Your task to perform on an android device: Go to display settings Image 0: 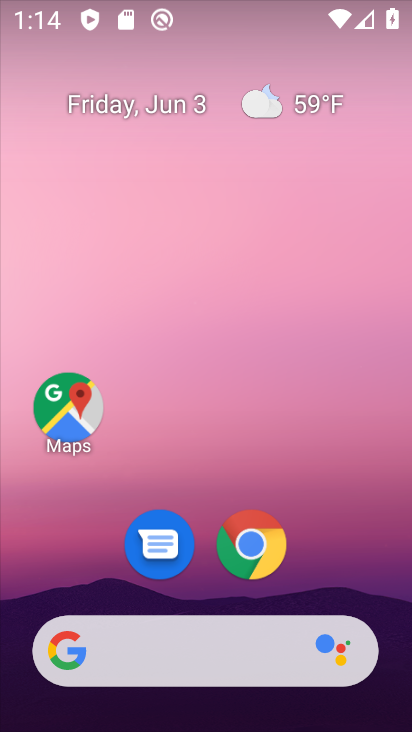
Step 0: drag from (183, 615) to (146, 0)
Your task to perform on an android device: Go to display settings Image 1: 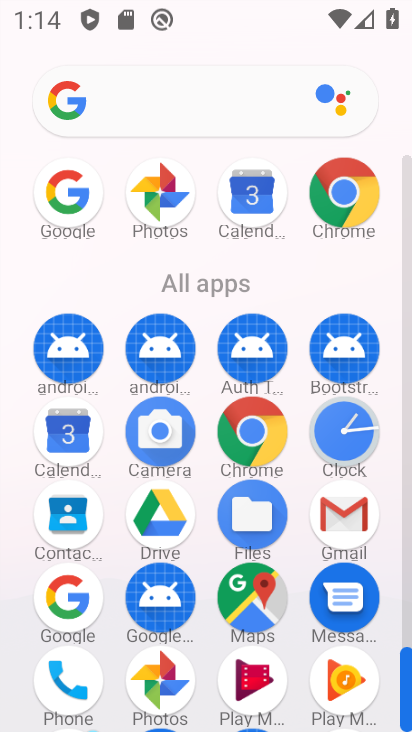
Step 1: drag from (107, 616) to (32, 82)
Your task to perform on an android device: Go to display settings Image 2: 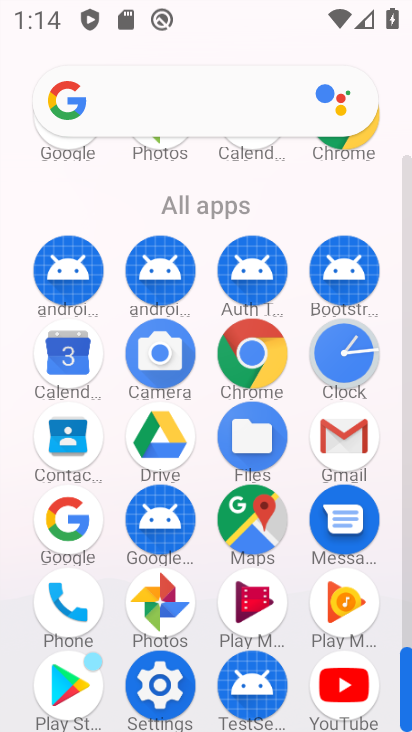
Step 2: click (185, 689)
Your task to perform on an android device: Go to display settings Image 3: 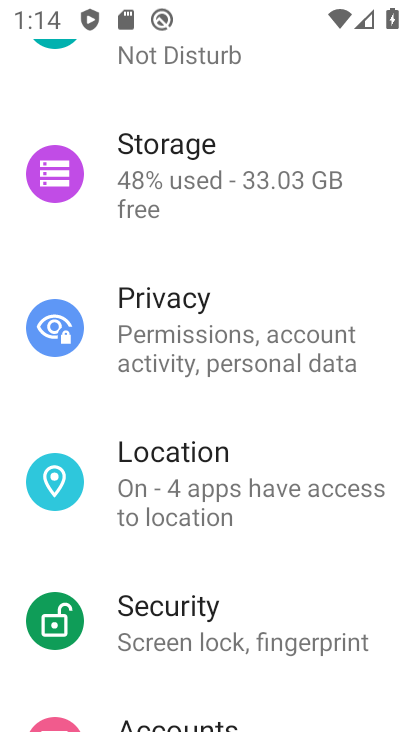
Step 3: drag from (162, 190) to (128, 636)
Your task to perform on an android device: Go to display settings Image 4: 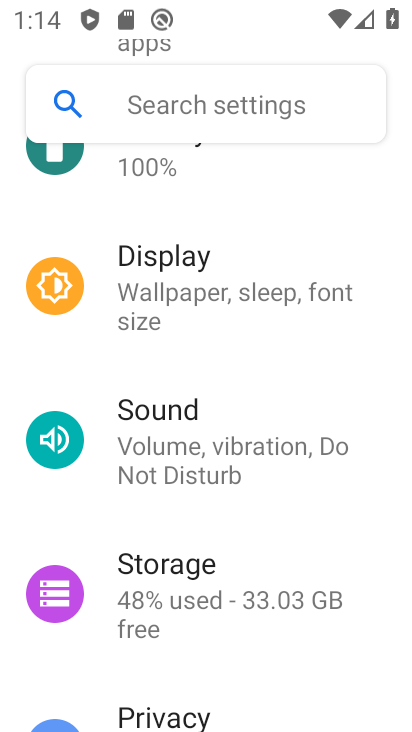
Step 4: click (141, 281)
Your task to perform on an android device: Go to display settings Image 5: 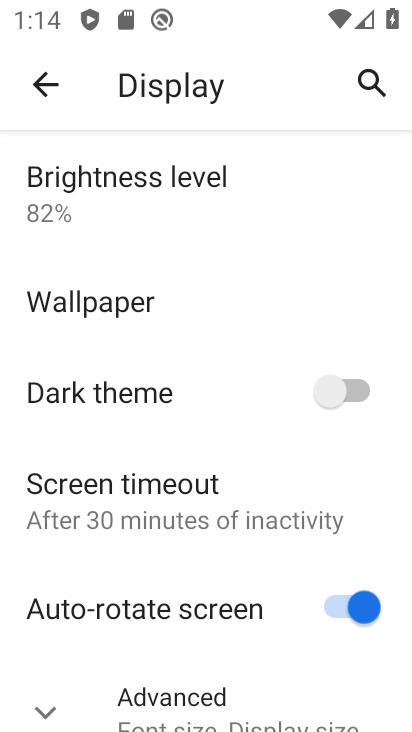
Step 5: drag from (239, 557) to (243, 103)
Your task to perform on an android device: Go to display settings Image 6: 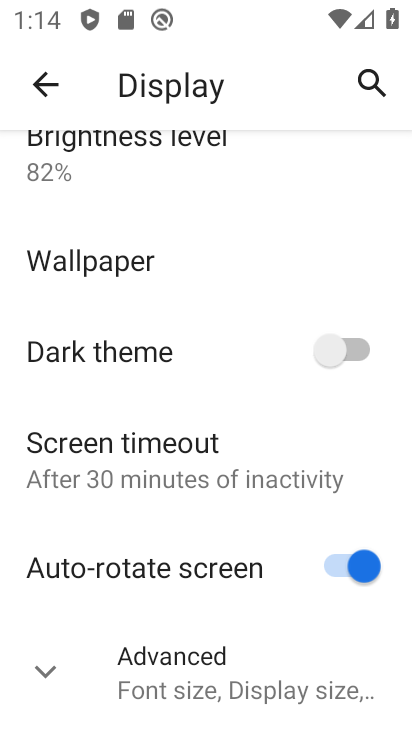
Step 6: click (223, 636)
Your task to perform on an android device: Go to display settings Image 7: 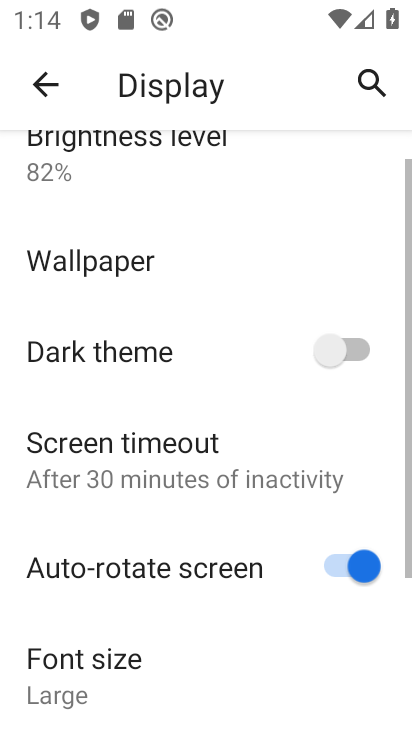
Step 7: drag from (222, 635) to (226, 395)
Your task to perform on an android device: Go to display settings Image 8: 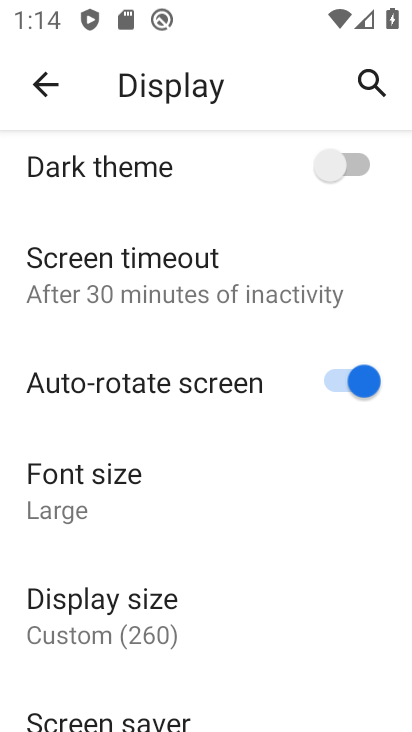
Step 8: click (146, 651)
Your task to perform on an android device: Go to display settings Image 9: 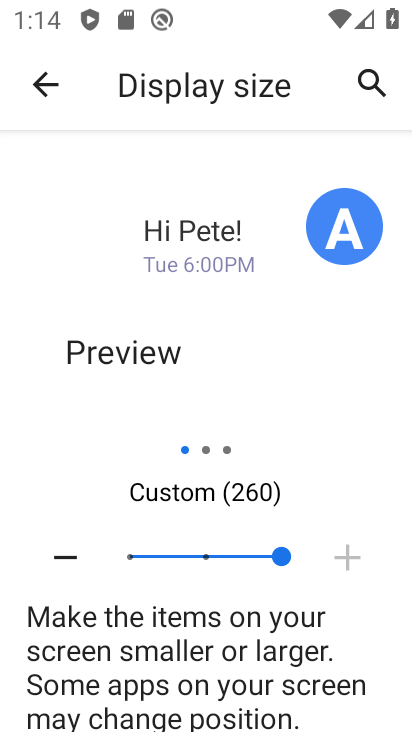
Step 9: task complete